Your task to perform on an android device: open app "Nova Launcher" (install if not already installed) Image 0: 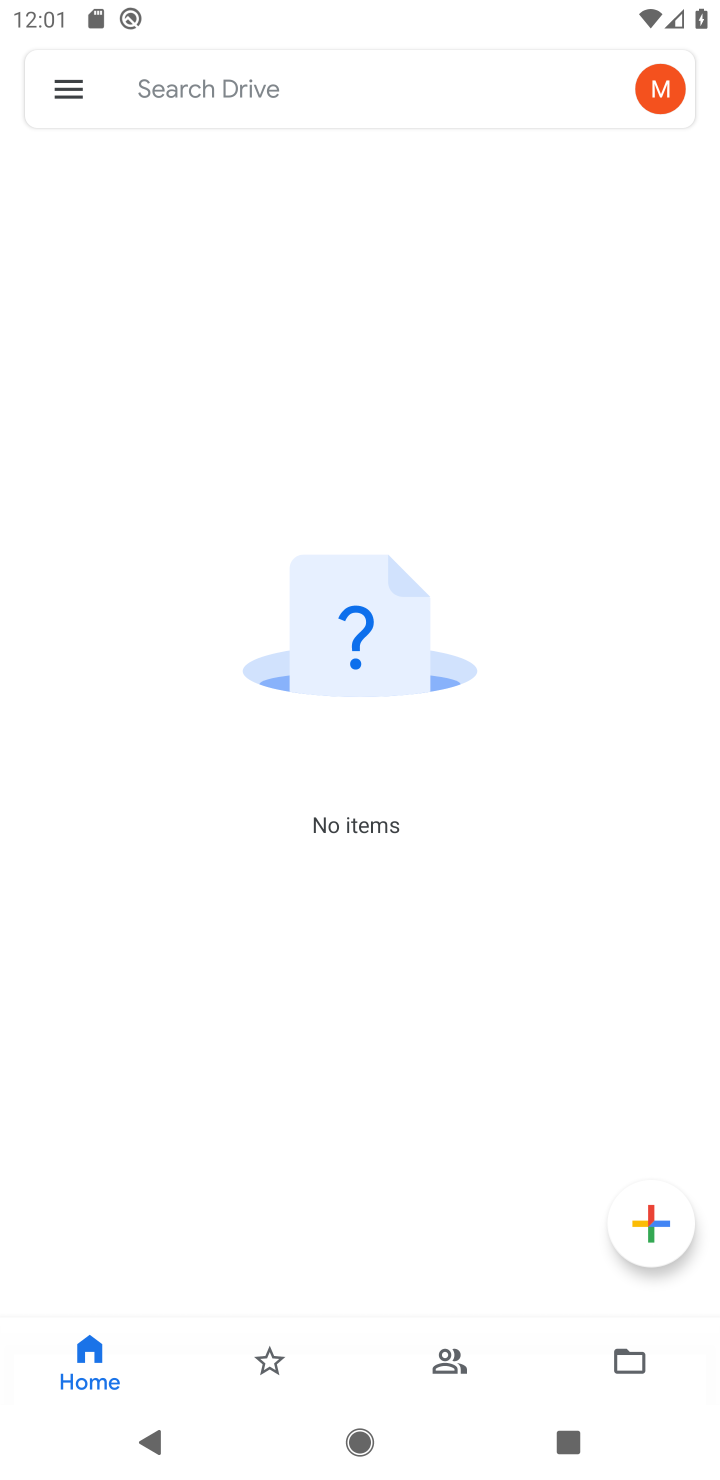
Step 0: press home button
Your task to perform on an android device: open app "Nova Launcher" (install if not already installed) Image 1: 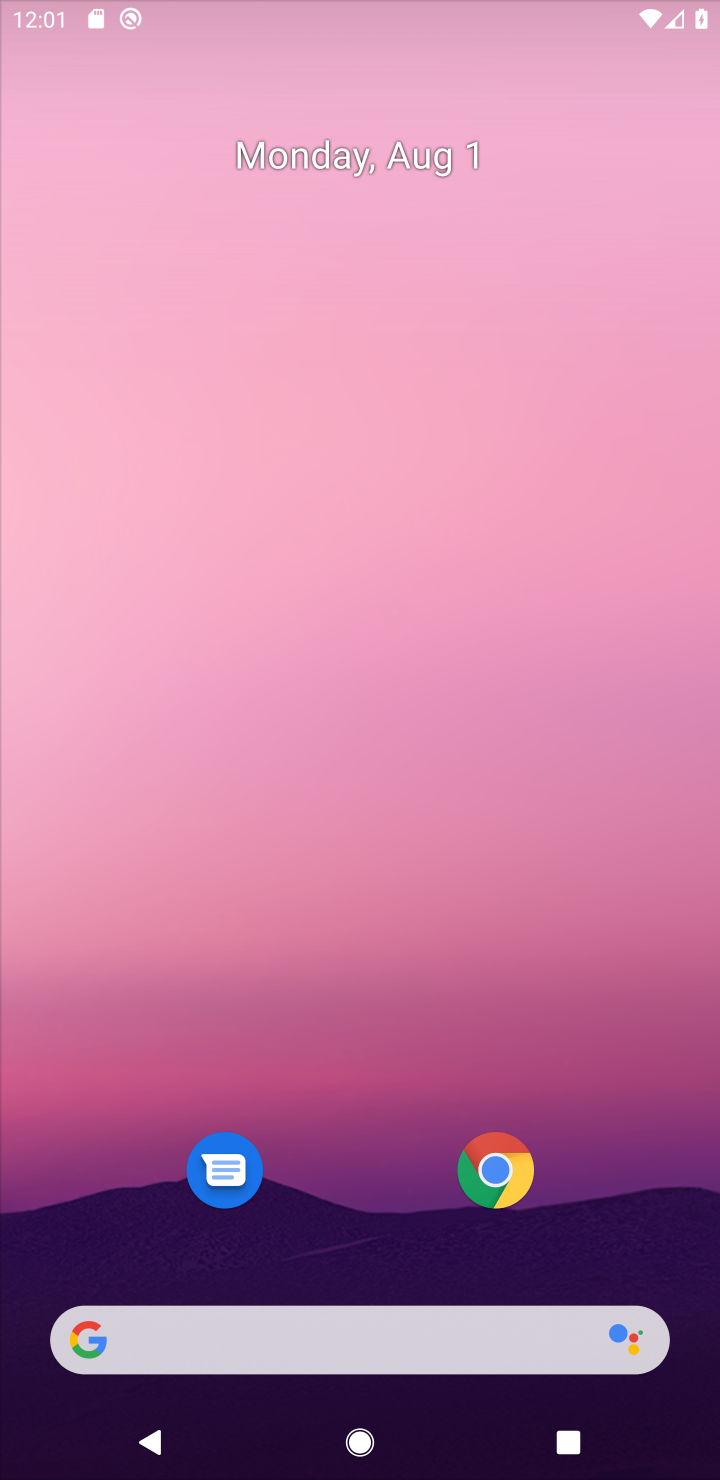
Step 1: drag from (617, 1245) to (479, 164)
Your task to perform on an android device: open app "Nova Launcher" (install if not already installed) Image 2: 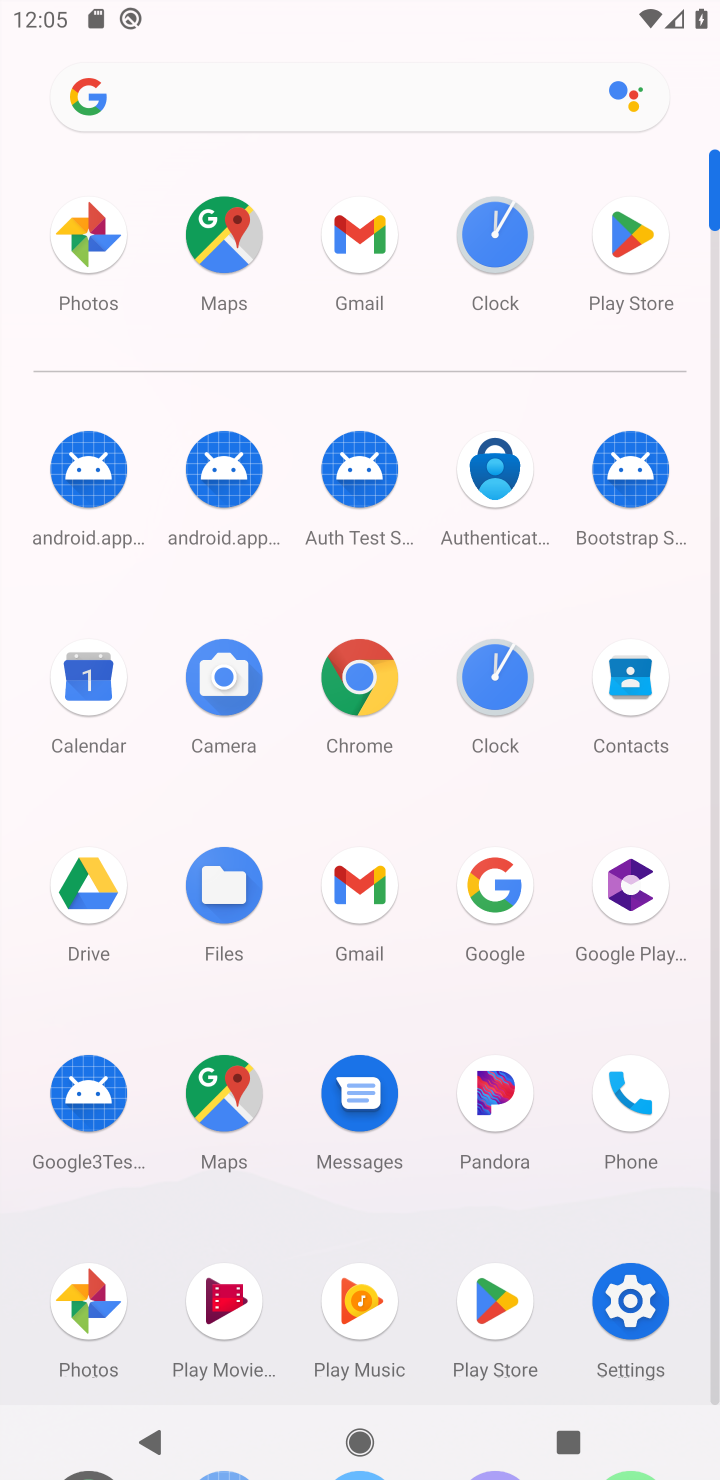
Step 2: click (592, 227)
Your task to perform on an android device: open app "Nova Launcher" (install if not already installed) Image 3: 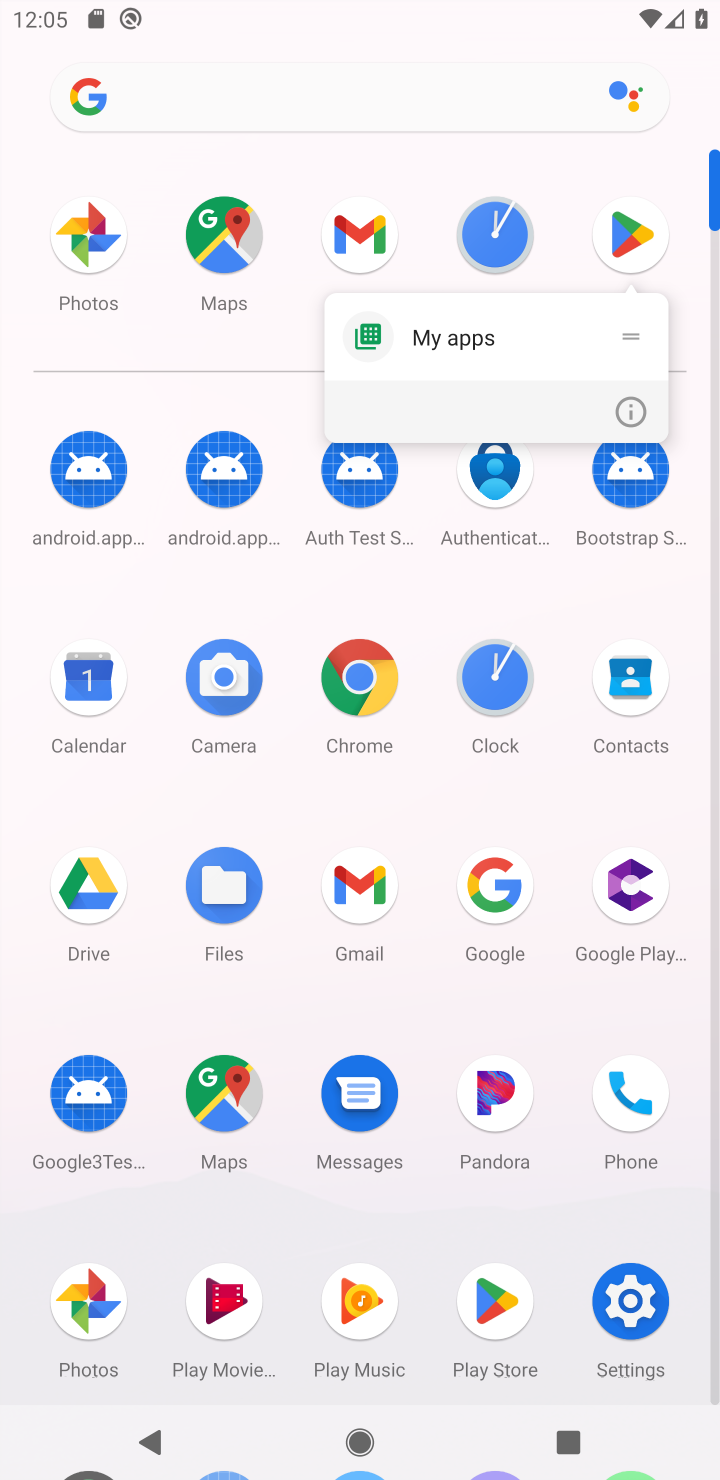
Step 3: click (624, 213)
Your task to perform on an android device: open app "Nova Launcher" (install if not already installed) Image 4: 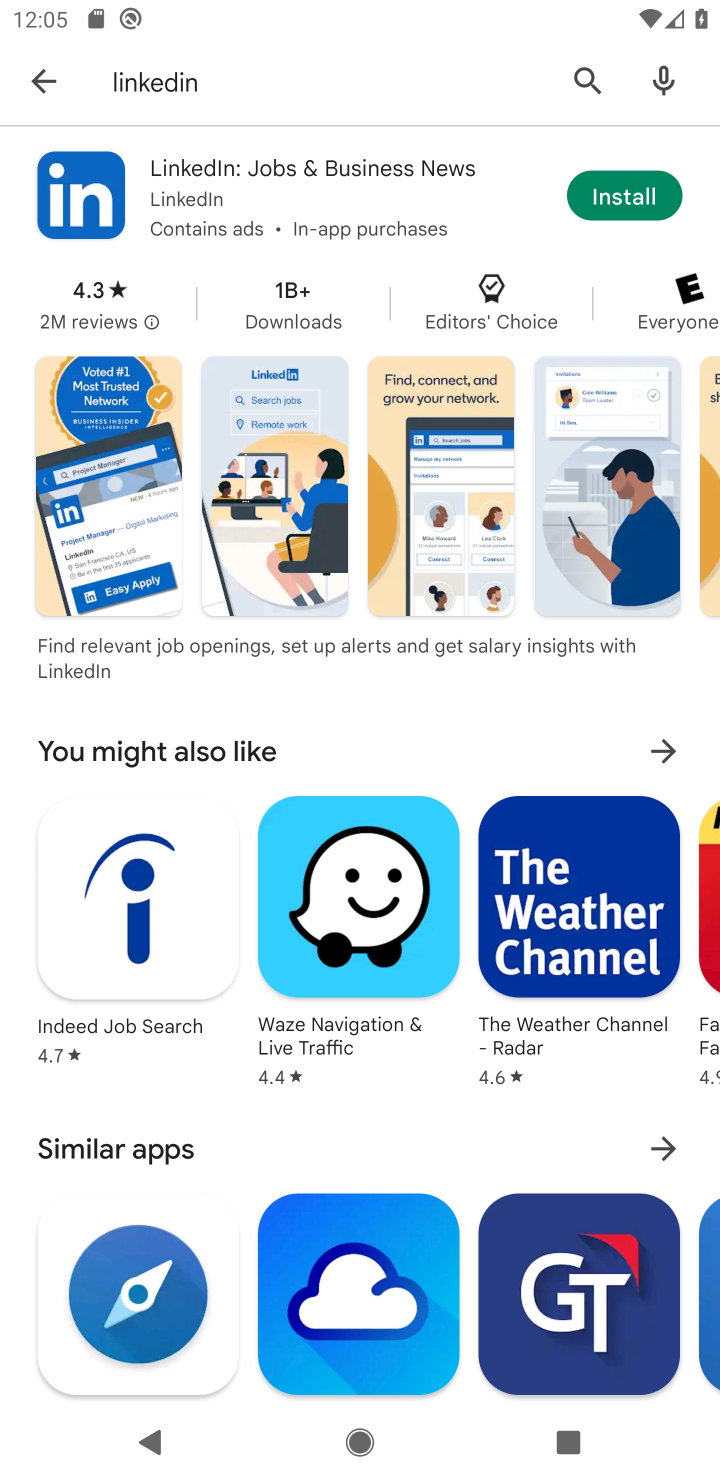
Step 4: press back button
Your task to perform on an android device: open app "Nova Launcher" (install if not already installed) Image 5: 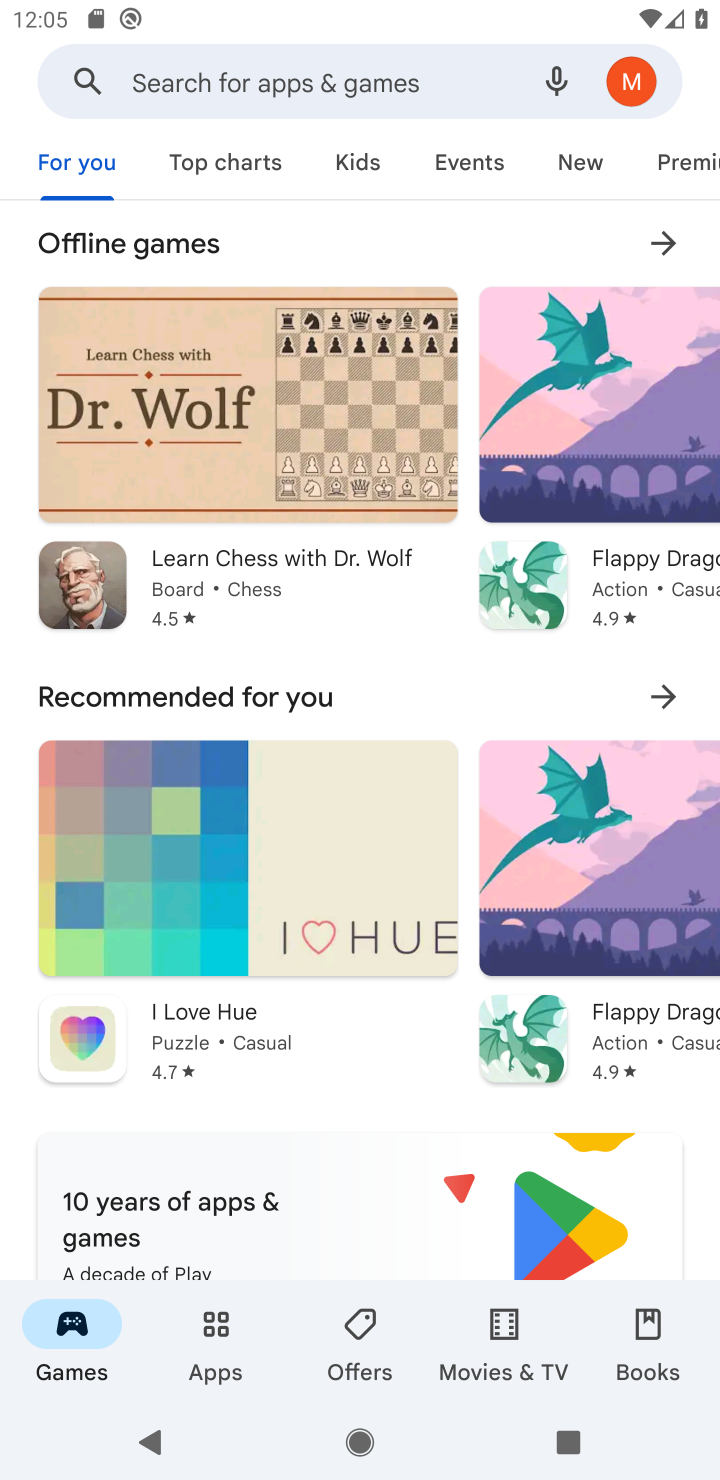
Step 5: click (214, 85)
Your task to perform on an android device: open app "Nova Launcher" (install if not already installed) Image 6: 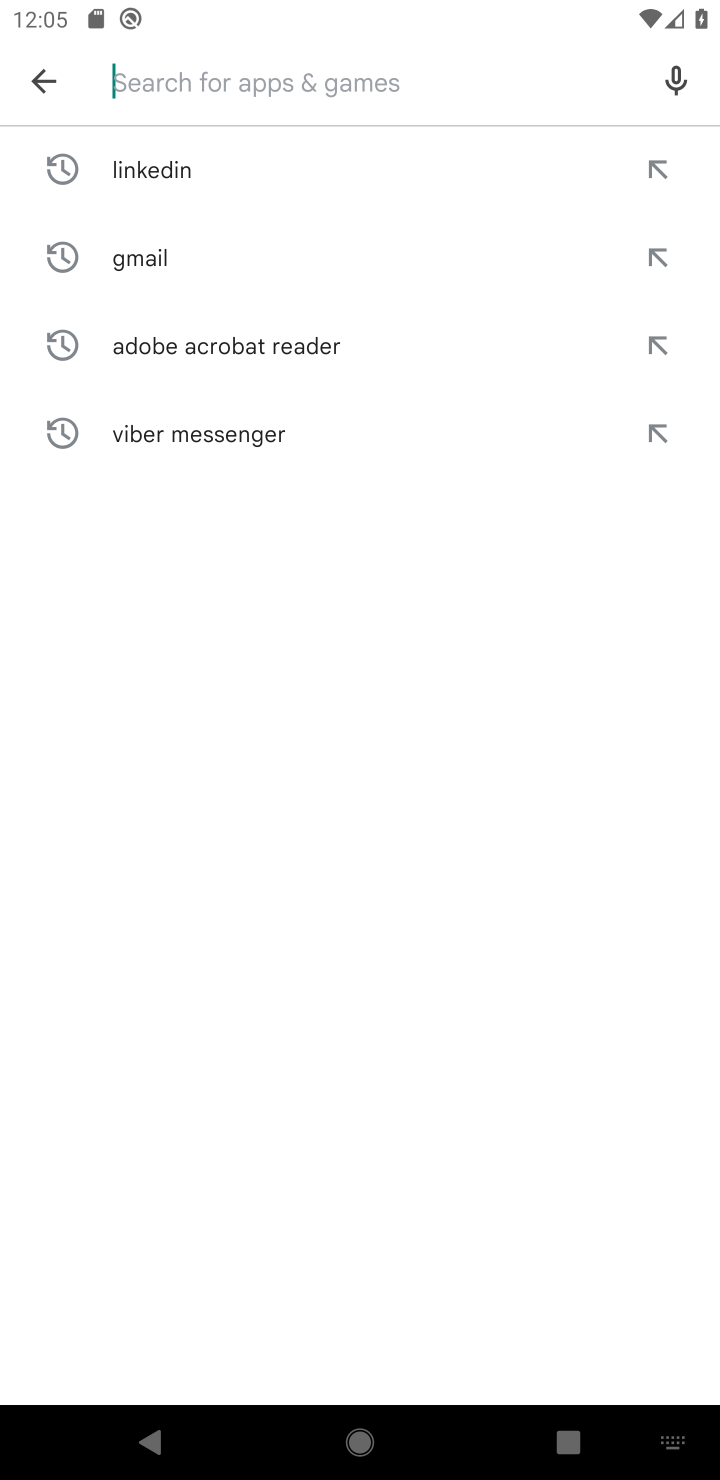
Step 6: type "Nova Launcher"
Your task to perform on an android device: open app "Nova Launcher" (install if not already installed) Image 7: 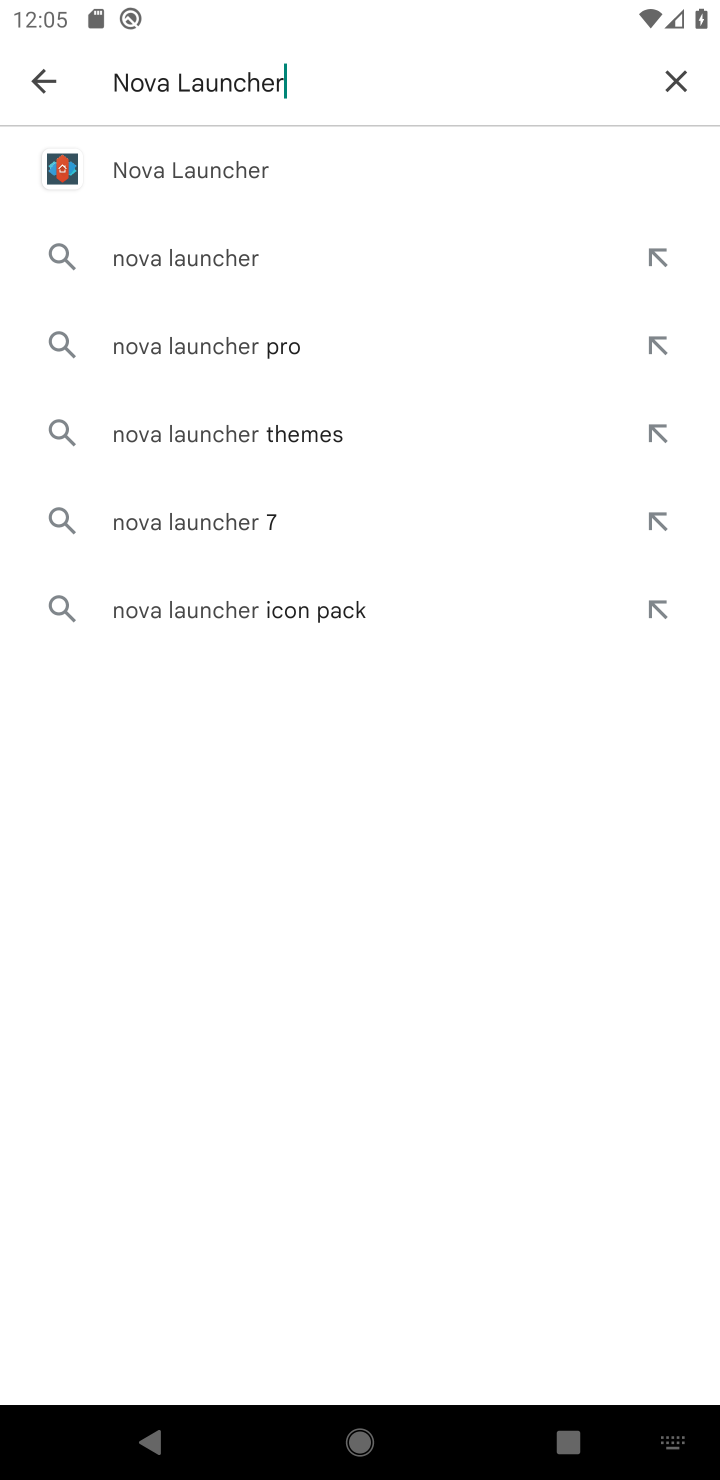
Step 7: click (233, 165)
Your task to perform on an android device: open app "Nova Launcher" (install if not already installed) Image 8: 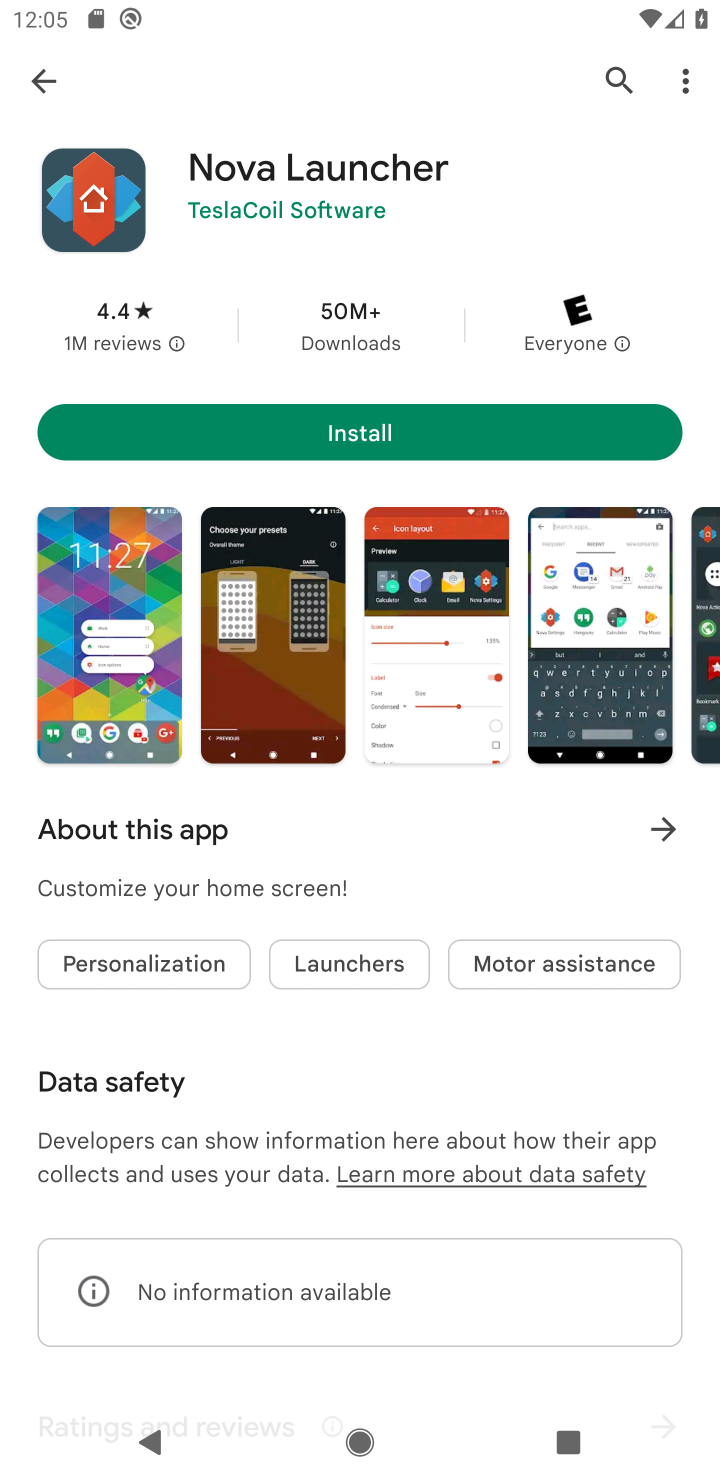
Step 8: task complete